Your task to perform on an android device: Open Google Chrome and click the shortcut for Amazon.com Image 0: 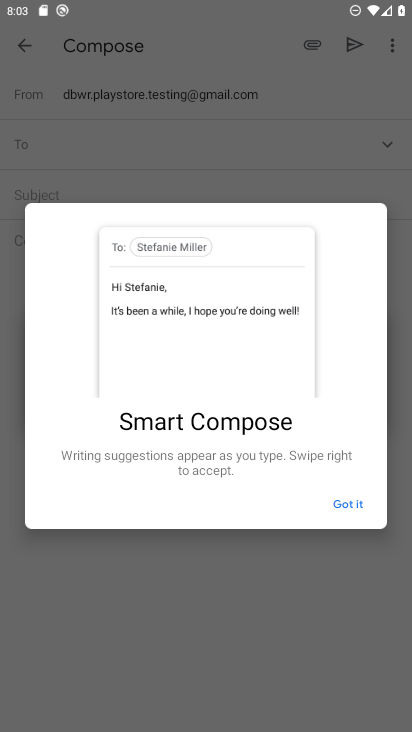
Step 0: press home button
Your task to perform on an android device: Open Google Chrome and click the shortcut for Amazon.com Image 1: 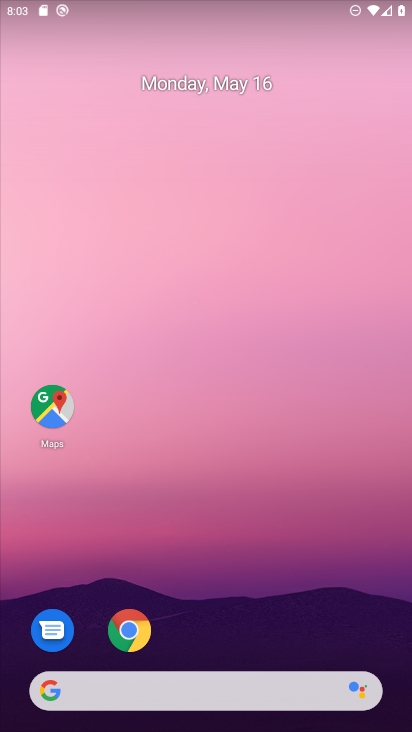
Step 1: click (125, 621)
Your task to perform on an android device: Open Google Chrome and click the shortcut for Amazon.com Image 2: 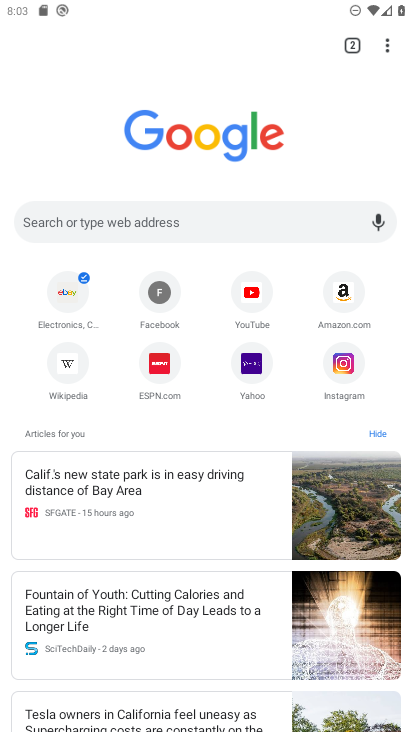
Step 2: click (336, 295)
Your task to perform on an android device: Open Google Chrome and click the shortcut for Amazon.com Image 3: 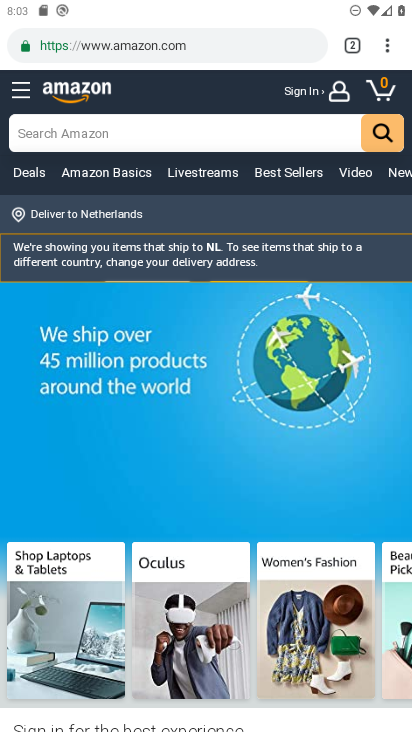
Step 3: task complete